Your task to perform on an android device: When is my next meeting? Image 0: 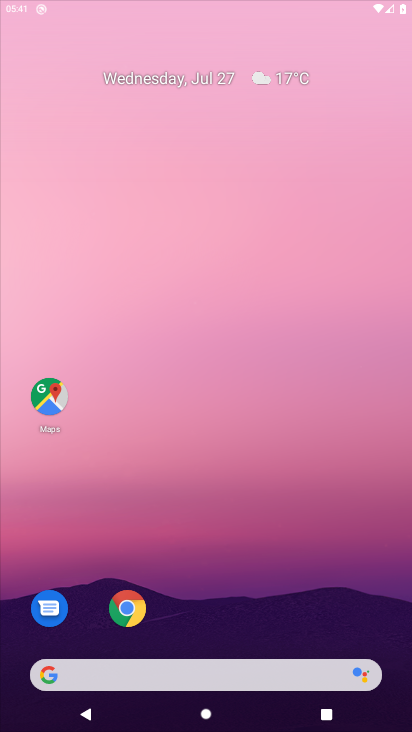
Step 0: press home button
Your task to perform on an android device: When is my next meeting? Image 1: 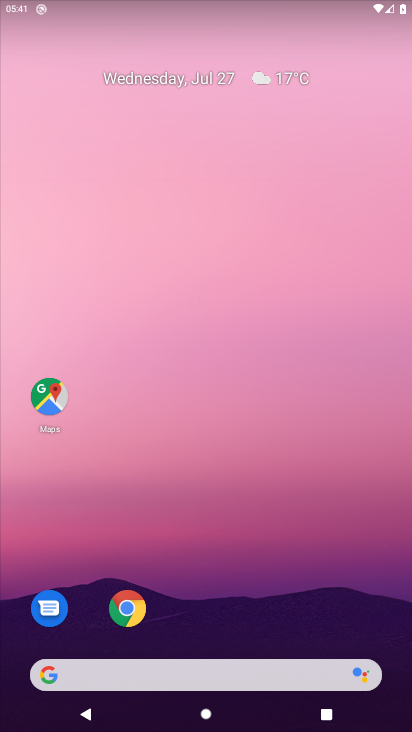
Step 1: drag from (232, 618) to (256, 179)
Your task to perform on an android device: When is my next meeting? Image 2: 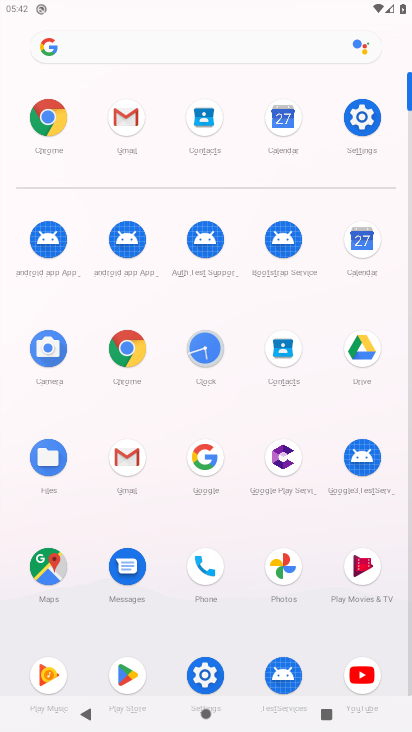
Step 2: click (360, 234)
Your task to perform on an android device: When is my next meeting? Image 3: 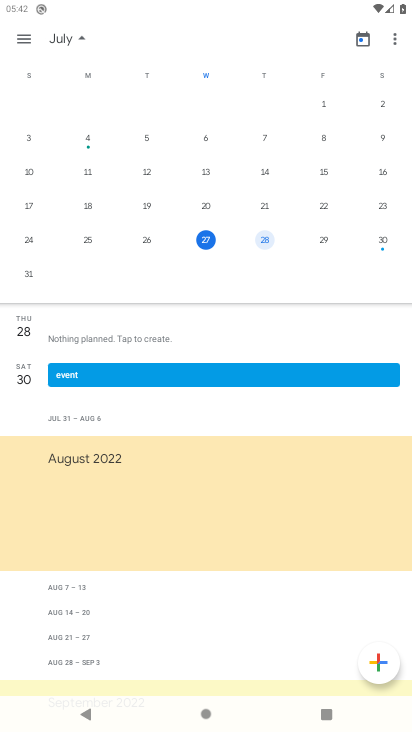
Step 3: click (32, 35)
Your task to perform on an android device: When is my next meeting? Image 4: 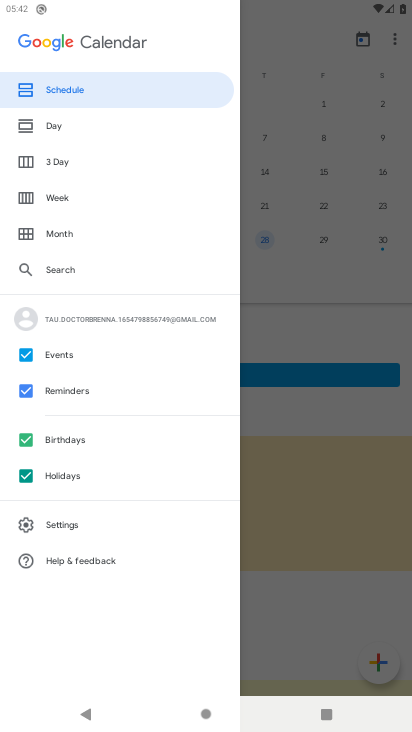
Step 4: click (48, 93)
Your task to perform on an android device: When is my next meeting? Image 5: 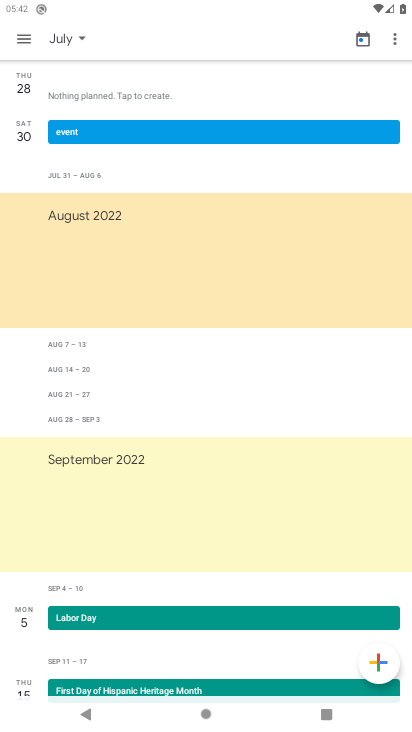
Step 5: task complete